Your task to perform on an android device: Open Chrome and go to settings Image 0: 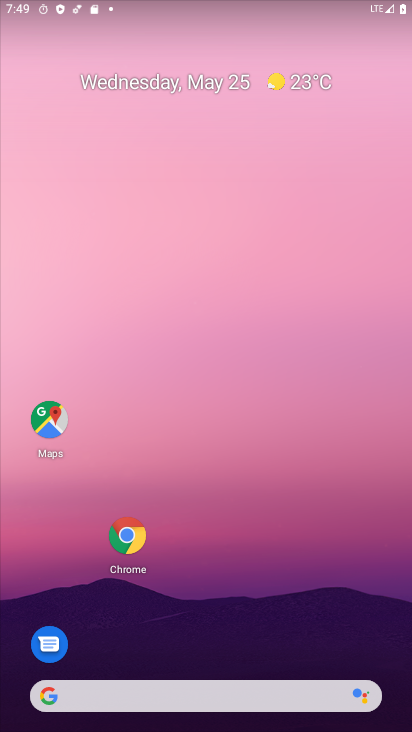
Step 0: click (142, 556)
Your task to perform on an android device: Open Chrome and go to settings Image 1: 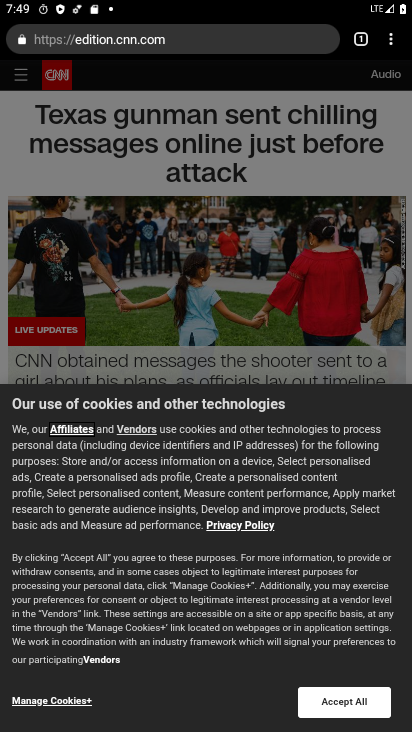
Step 1: click (387, 45)
Your task to perform on an android device: Open Chrome and go to settings Image 2: 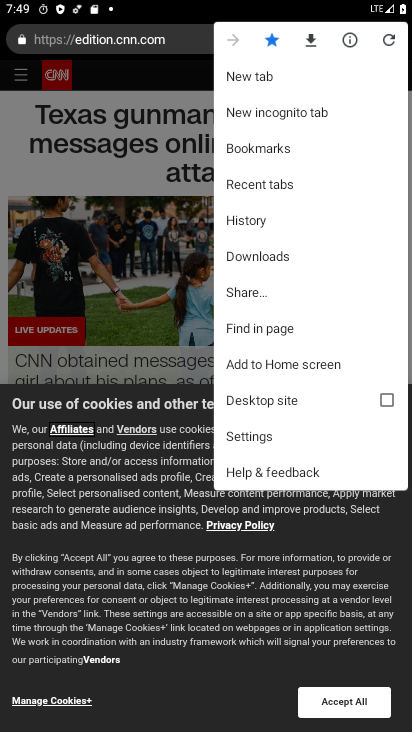
Step 2: click (269, 443)
Your task to perform on an android device: Open Chrome and go to settings Image 3: 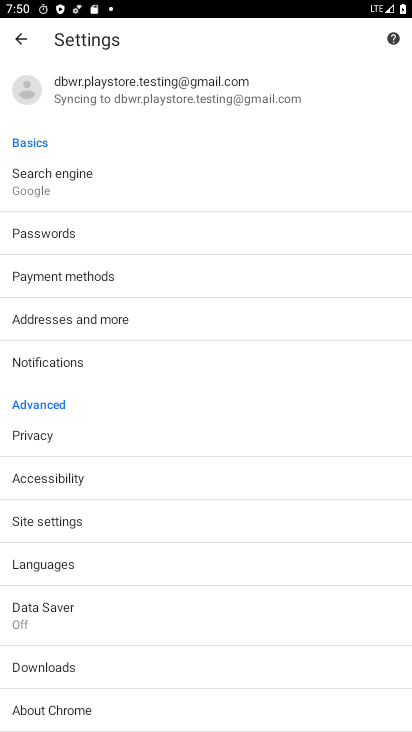
Step 3: task complete